Your task to perform on an android device: Open battery settings Image 0: 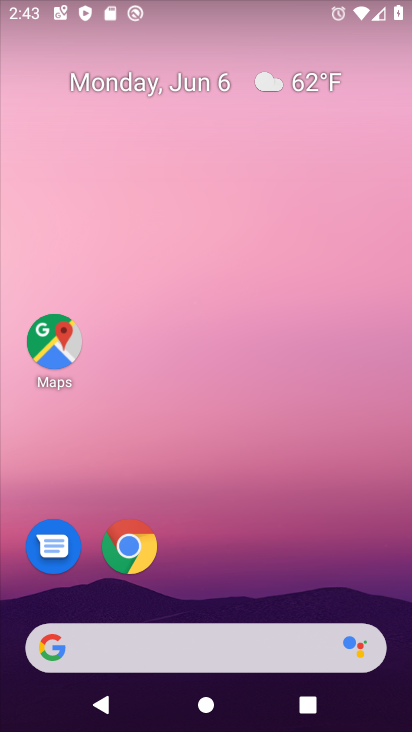
Step 0: drag from (194, 590) to (214, 244)
Your task to perform on an android device: Open battery settings Image 1: 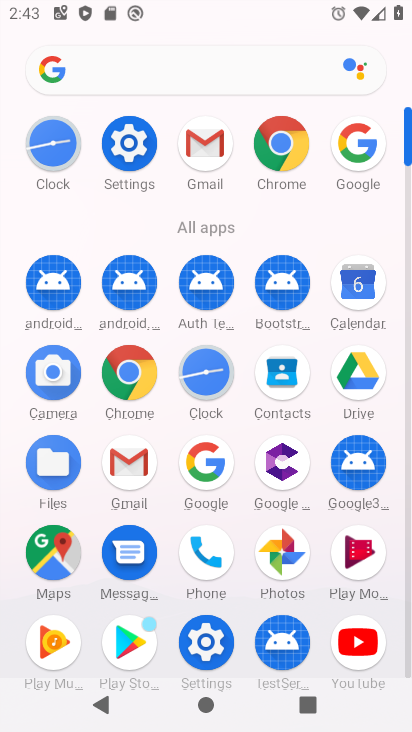
Step 1: click (121, 162)
Your task to perform on an android device: Open battery settings Image 2: 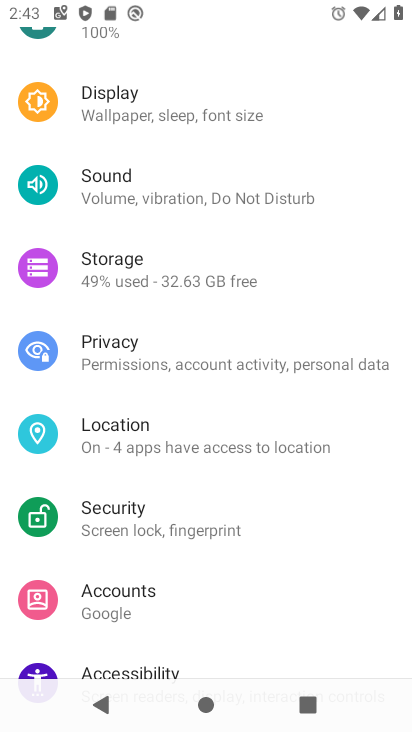
Step 2: drag from (187, 186) to (215, 480)
Your task to perform on an android device: Open battery settings Image 3: 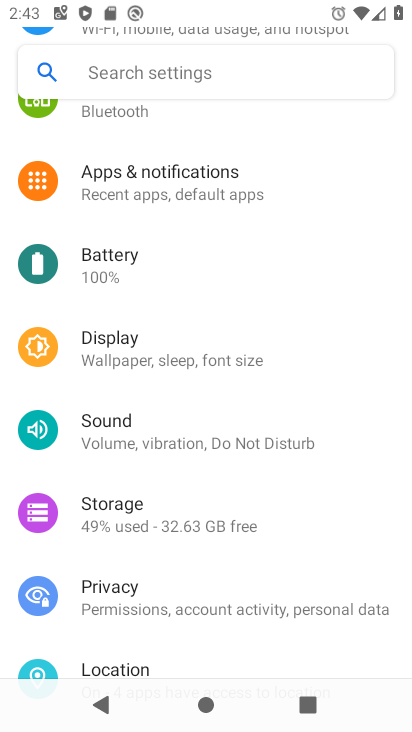
Step 3: click (178, 273)
Your task to perform on an android device: Open battery settings Image 4: 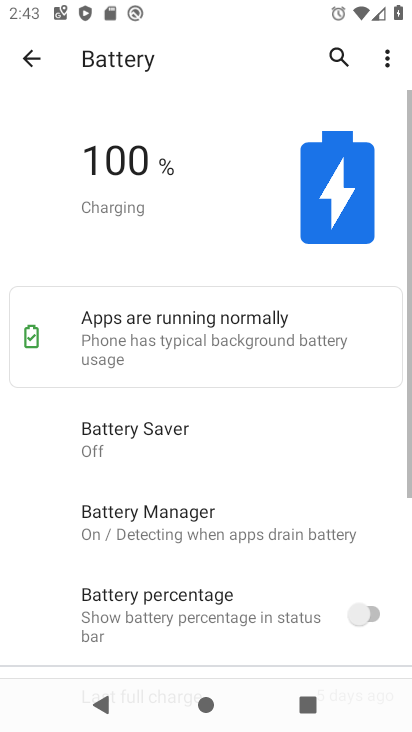
Step 4: task complete